Your task to perform on an android device: Open network settings Image 0: 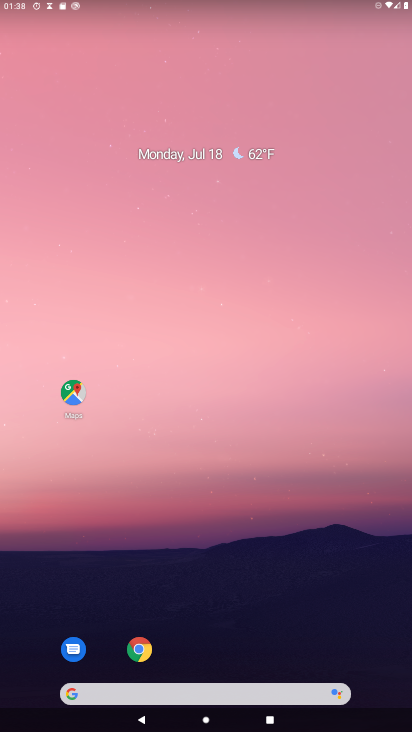
Step 0: drag from (129, 522) to (352, 120)
Your task to perform on an android device: Open network settings Image 1: 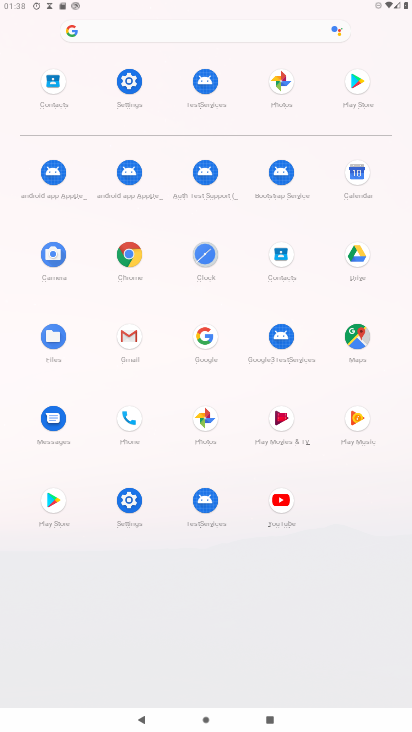
Step 1: click (138, 502)
Your task to perform on an android device: Open network settings Image 2: 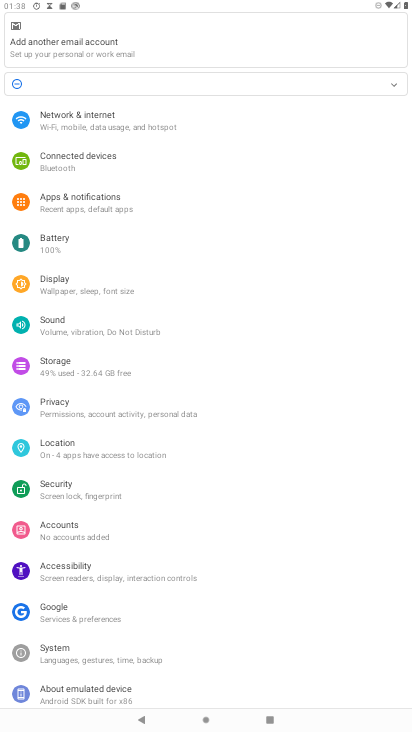
Step 2: click (92, 125)
Your task to perform on an android device: Open network settings Image 3: 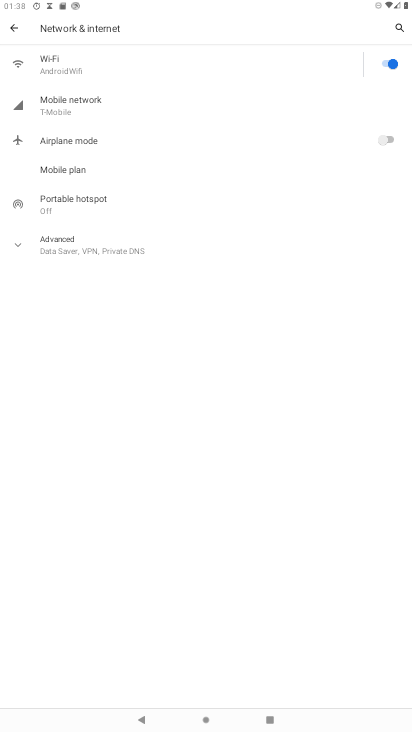
Step 3: click (78, 109)
Your task to perform on an android device: Open network settings Image 4: 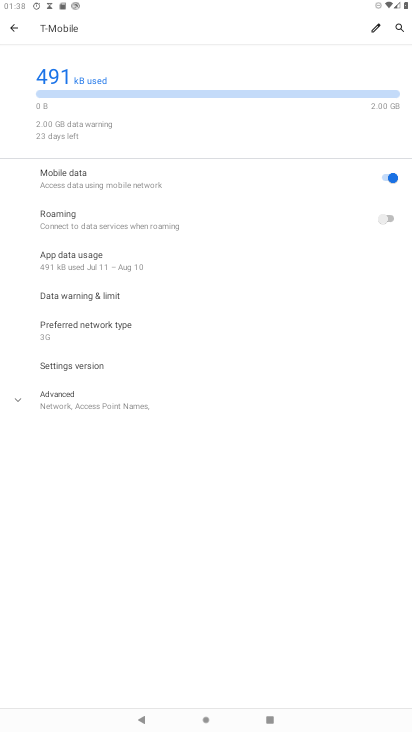
Step 4: task complete